Your task to perform on an android device: search for 2021 honda civic Image 0: 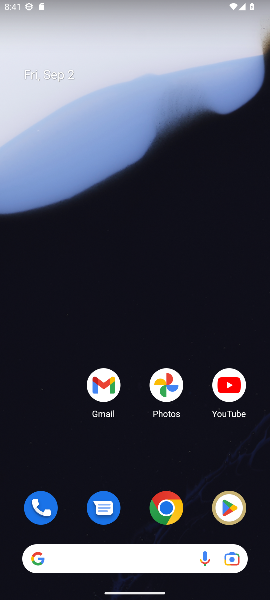
Step 0: drag from (126, 459) to (156, 87)
Your task to perform on an android device: search for 2021 honda civic Image 1: 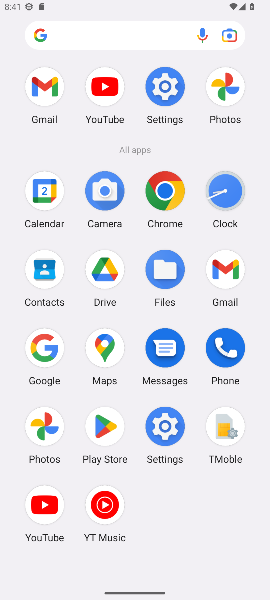
Step 1: click (158, 192)
Your task to perform on an android device: search for 2021 honda civic Image 2: 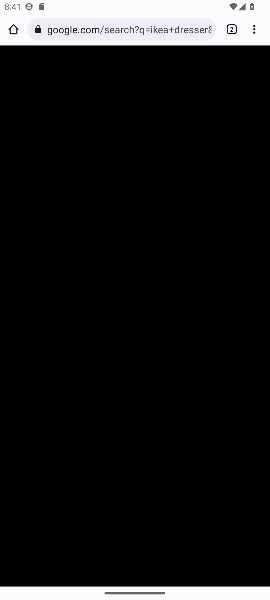
Step 2: click (124, 26)
Your task to perform on an android device: search for 2021 honda civic Image 3: 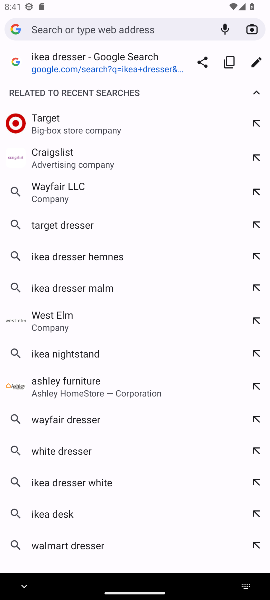
Step 3: type "2021 honda civic"
Your task to perform on an android device: search for 2021 honda civic Image 4: 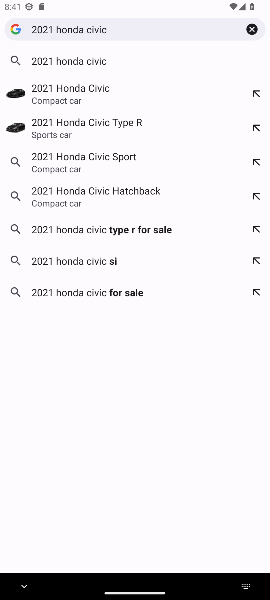
Step 4: click (60, 58)
Your task to perform on an android device: search for 2021 honda civic Image 5: 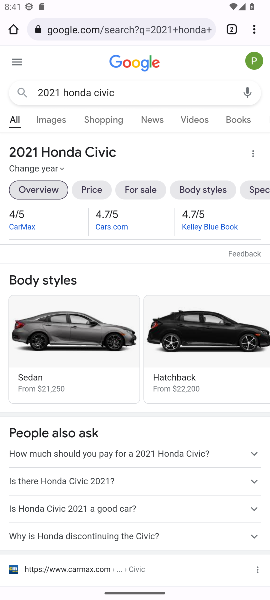
Step 5: task complete